Your task to perform on an android device: check out phone information Image 0: 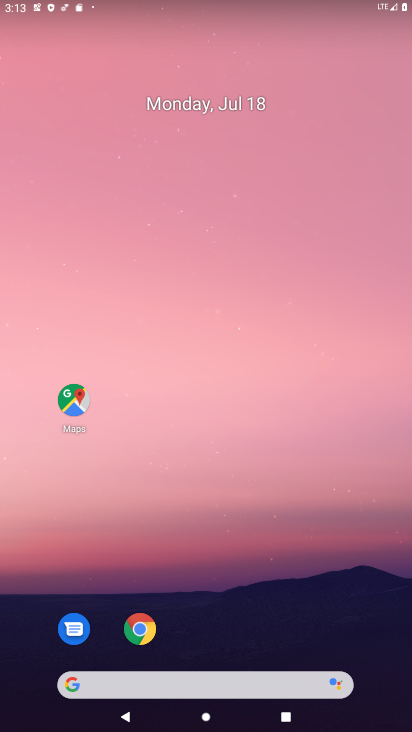
Step 0: drag from (227, 672) to (228, 9)
Your task to perform on an android device: check out phone information Image 1: 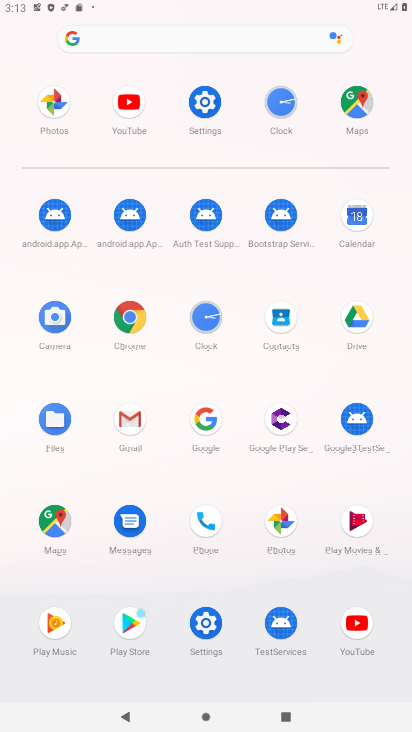
Step 1: click (211, 620)
Your task to perform on an android device: check out phone information Image 2: 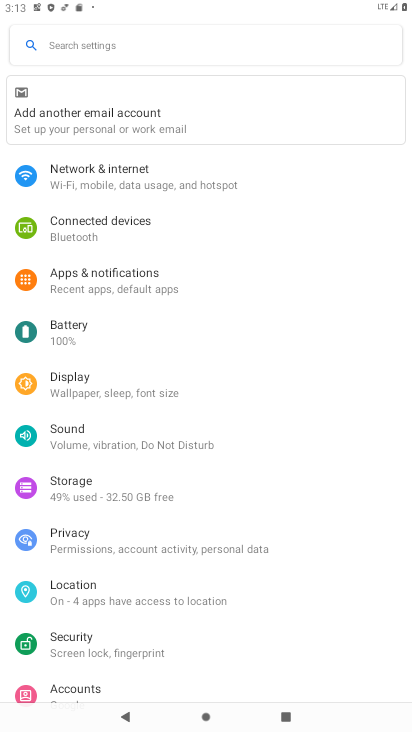
Step 2: drag from (179, 596) to (248, 87)
Your task to perform on an android device: check out phone information Image 3: 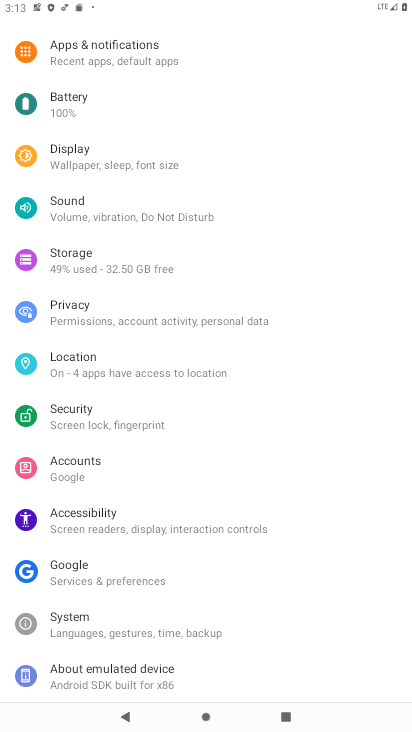
Step 3: drag from (178, 643) to (207, 192)
Your task to perform on an android device: check out phone information Image 4: 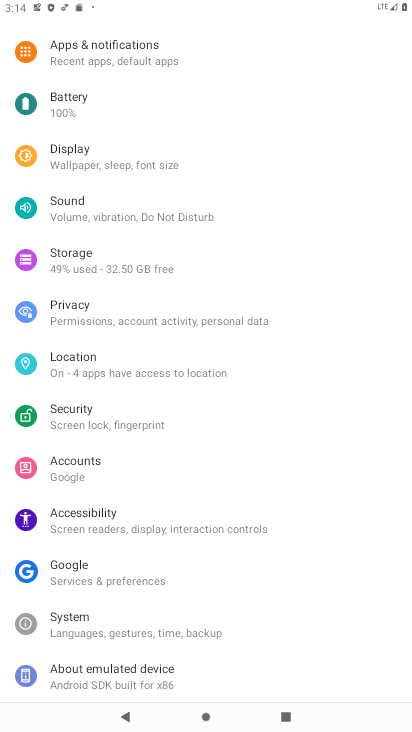
Step 4: drag from (136, 622) to (139, 397)
Your task to perform on an android device: check out phone information Image 5: 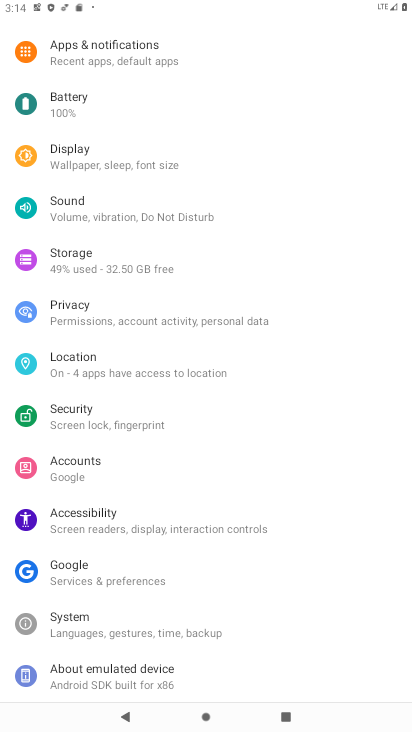
Step 5: click (98, 683)
Your task to perform on an android device: check out phone information Image 6: 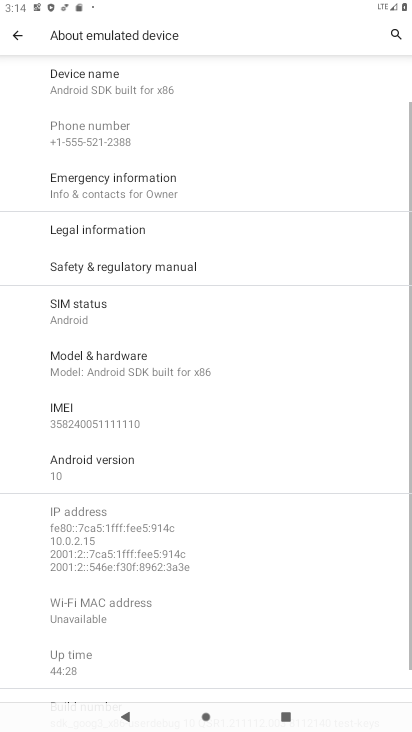
Step 6: task complete